Your task to perform on an android device: Go to Yahoo.com Image 0: 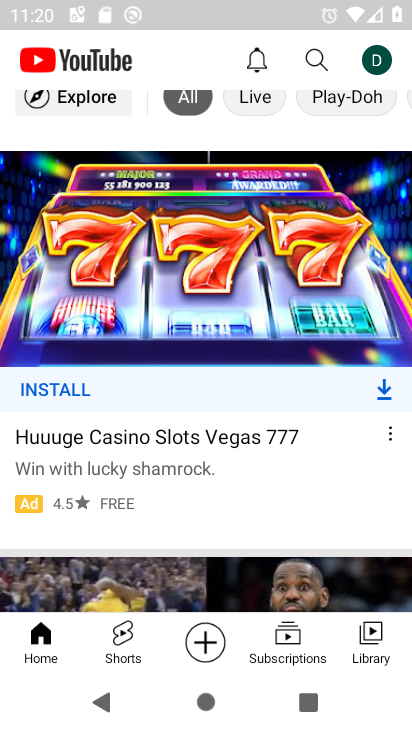
Step 0: press home button
Your task to perform on an android device: Go to Yahoo.com Image 1: 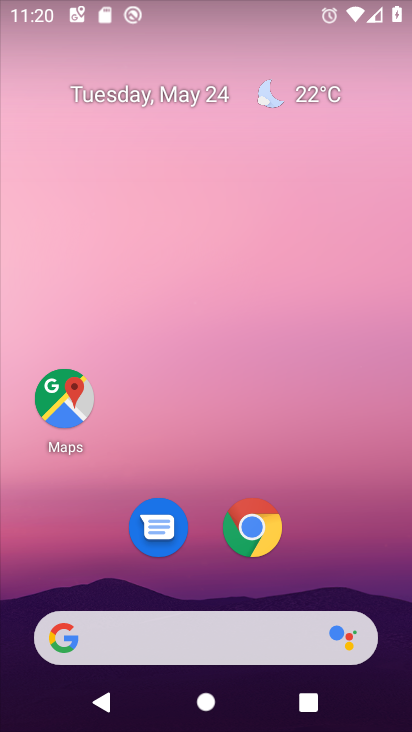
Step 1: click (250, 535)
Your task to perform on an android device: Go to Yahoo.com Image 2: 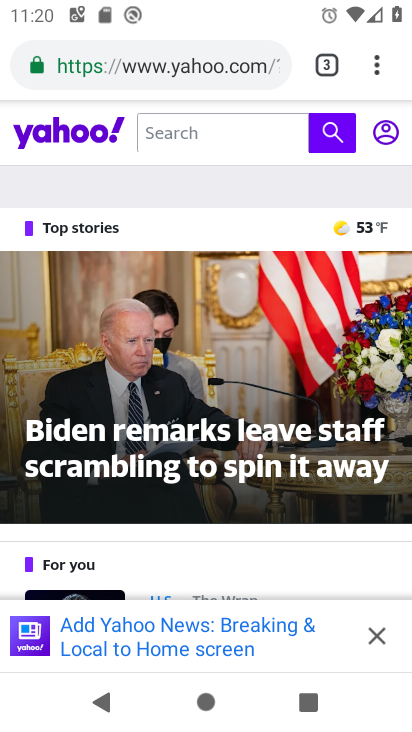
Step 2: task complete